Your task to perform on an android device: Go to network settings Image 0: 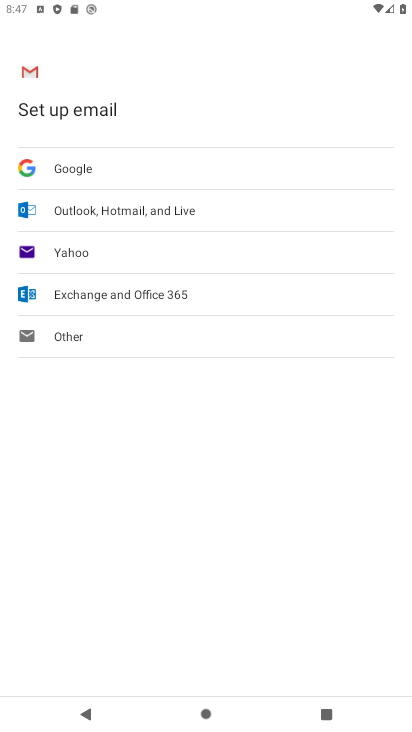
Step 0: press home button
Your task to perform on an android device: Go to network settings Image 1: 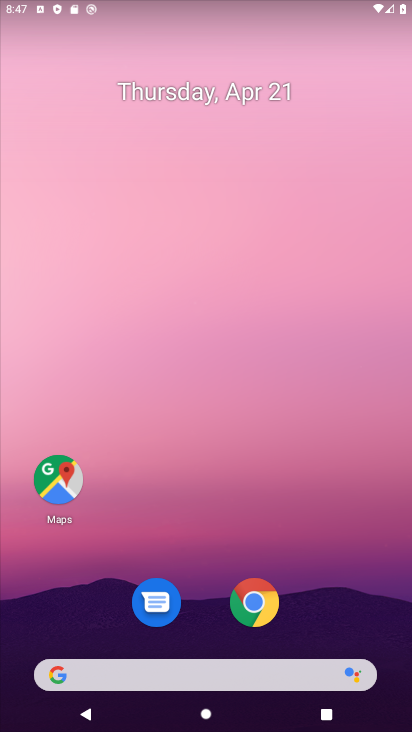
Step 1: drag from (254, 9) to (222, 334)
Your task to perform on an android device: Go to network settings Image 2: 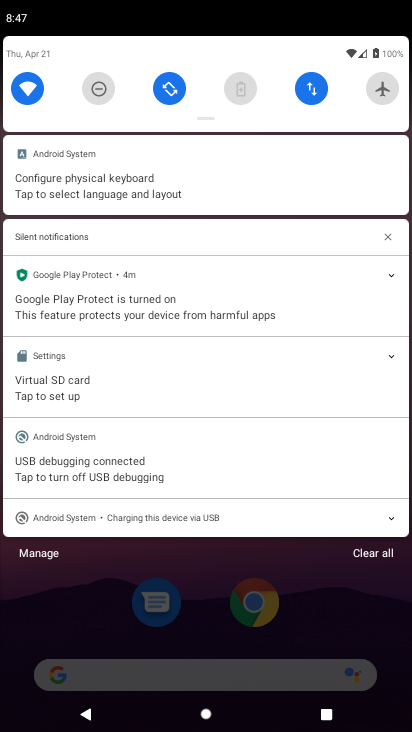
Step 2: drag from (252, 47) to (231, 519)
Your task to perform on an android device: Go to network settings Image 3: 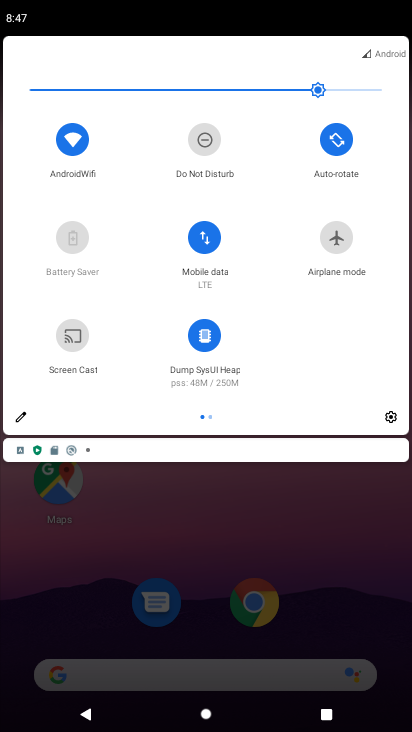
Step 3: click (382, 418)
Your task to perform on an android device: Go to network settings Image 4: 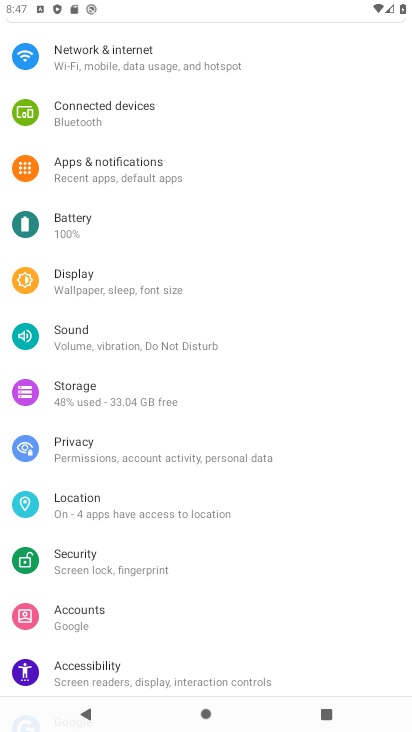
Step 4: click (240, 64)
Your task to perform on an android device: Go to network settings Image 5: 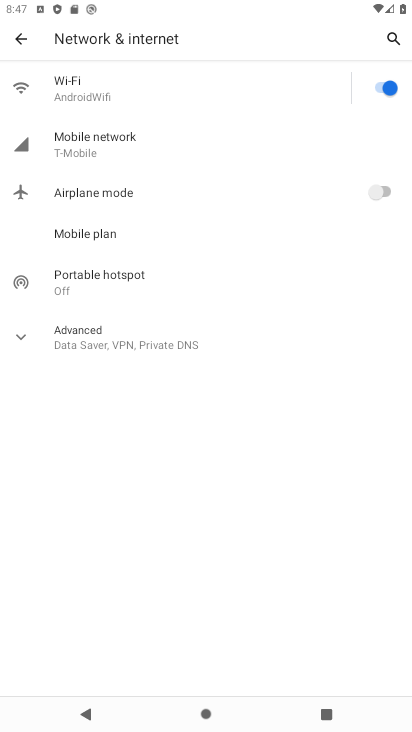
Step 5: task complete